Your task to perform on an android device: Open Chrome and go to the settings page Image 0: 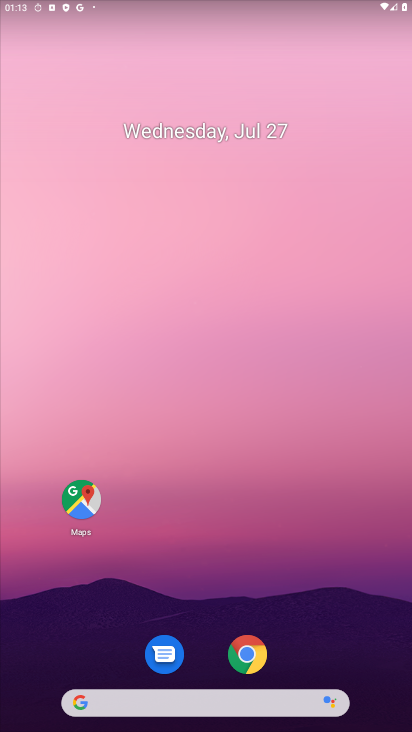
Step 0: drag from (267, 604) to (332, 40)
Your task to perform on an android device: Open Chrome and go to the settings page Image 1: 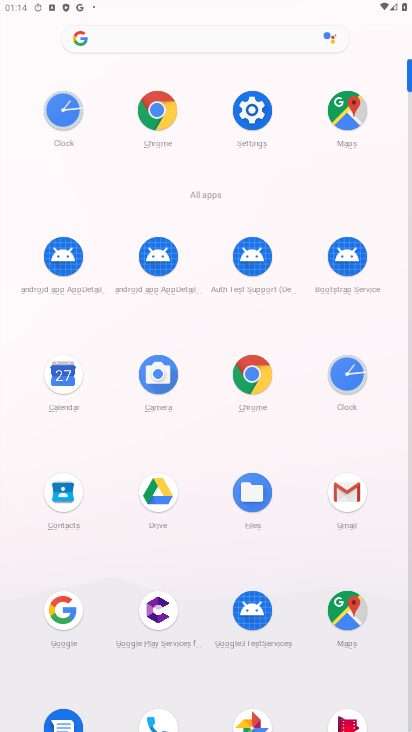
Step 1: click (250, 366)
Your task to perform on an android device: Open Chrome and go to the settings page Image 2: 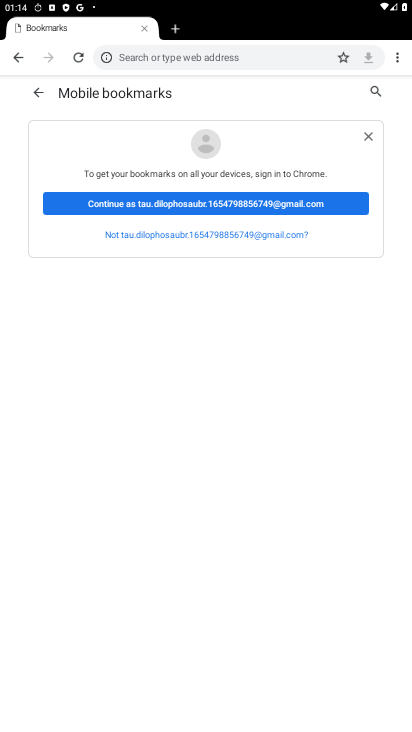
Step 2: click (388, 58)
Your task to perform on an android device: Open Chrome and go to the settings page Image 3: 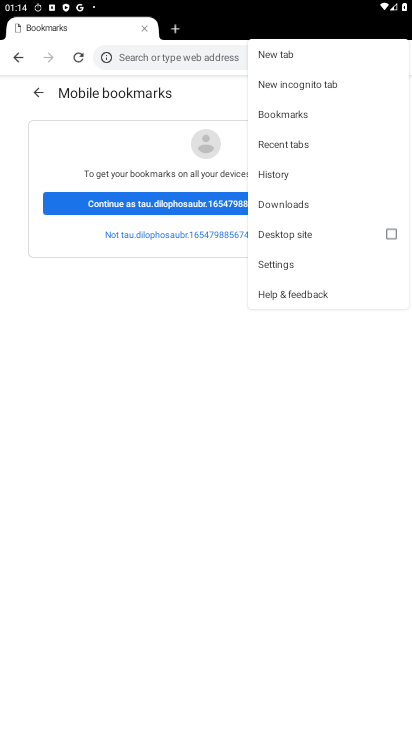
Step 3: click (289, 269)
Your task to perform on an android device: Open Chrome and go to the settings page Image 4: 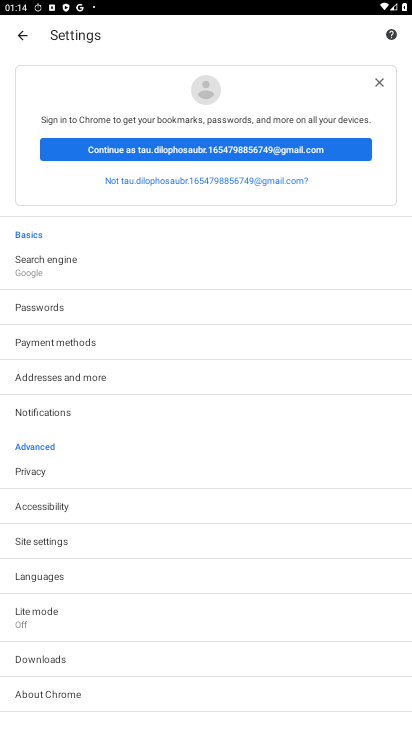
Step 4: task complete